Your task to perform on an android device: Go to notification settings Image 0: 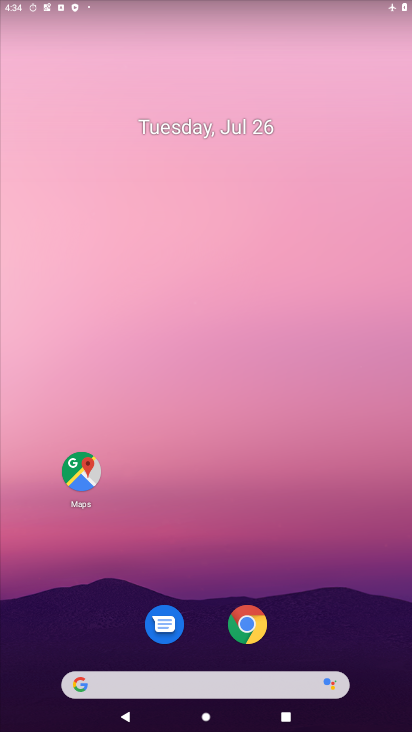
Step 0: drag from (276, 671) to (407, 32)
Your task to perform on an android device: Go to notification settings Image 1: 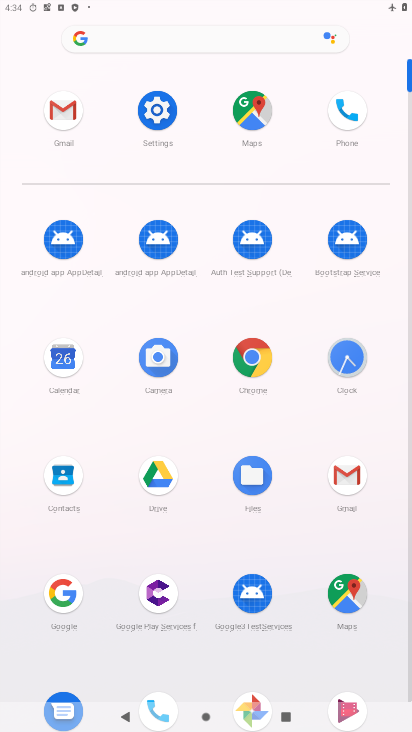
Step 1: click (153, 115)
Your task to perform on an android device: Go to notification settings Image 2: 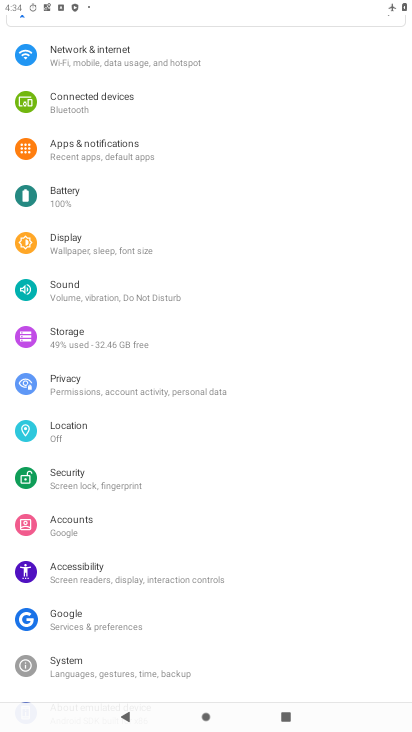
Step 2: click (116, 159)
Your task to perform on an android device: Go to notification settings Image 3: 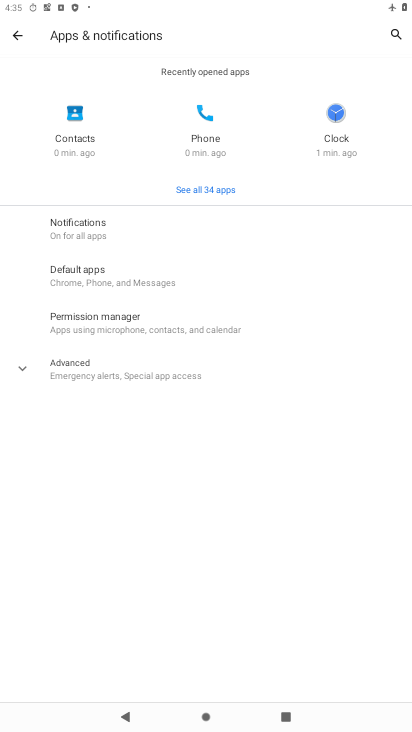
Step 3: click (112, 238)
Your task to perform on an android device: Go to notification settings Image 4: 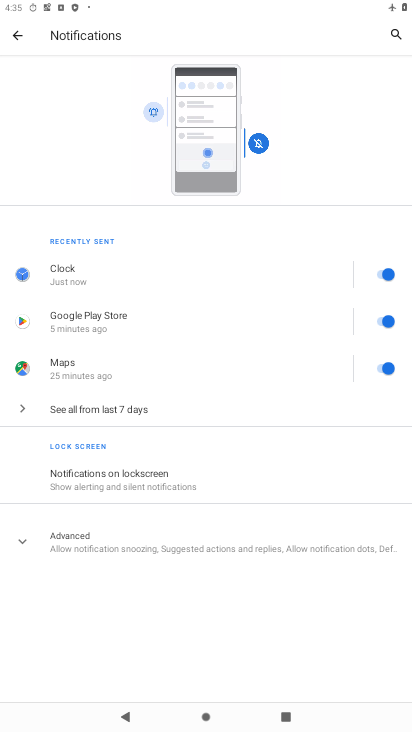
Step 4: task complete